Your task to perform on an android device: turn pop-ups off in chrome Image 0: 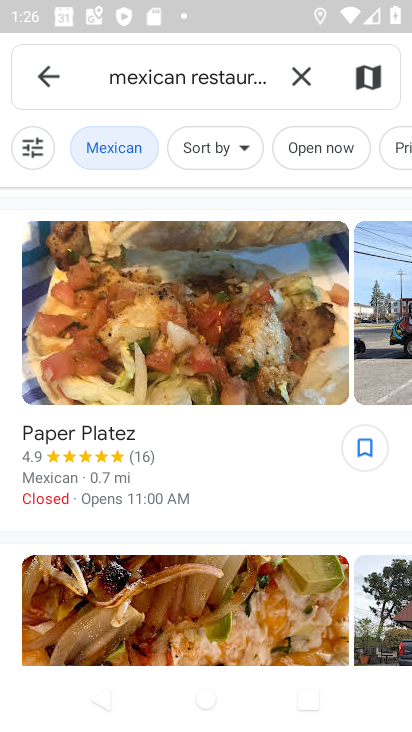
Step 0: press home button
Your task to perform on an android device: turn pop-ups off in chrome Image 1: 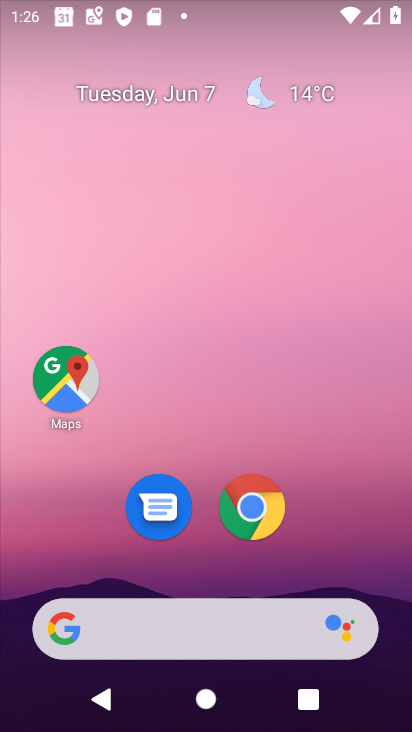
Step 1: click (247, 502)
Your task to perform on an android device: turn pop-ups off in chrome Image 2: 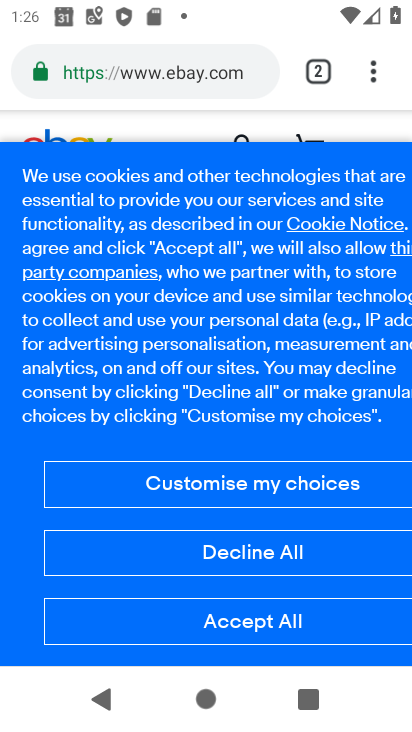
Step 2: click (369, 79)
Your task to perform on an android device: turn pop-ups off in chrome Image 3: 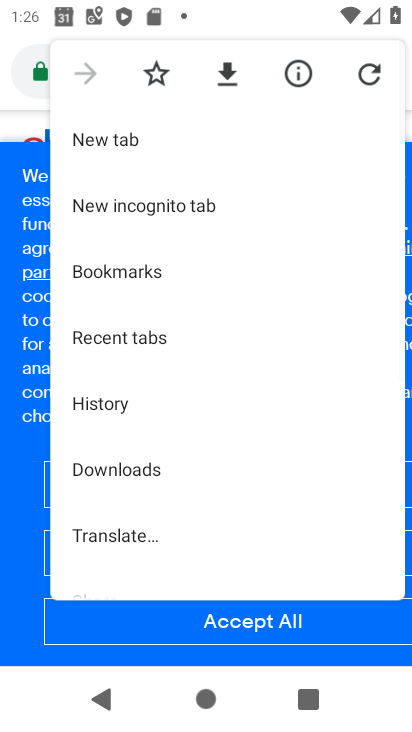
Step 3: drag from (219, 488) to (210, 151)
Your task to perform on an android device: turn pop-ups off in chrome Image 4: 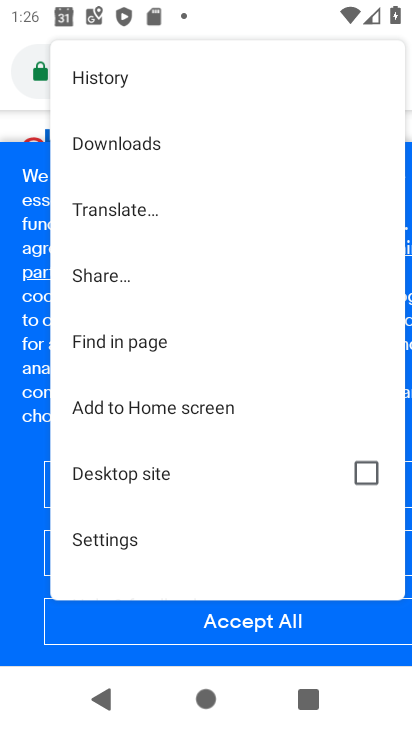
Step 4: click (113, 538)
Your task to perform on an android device: turn pop-ups off in chrome Image 5: 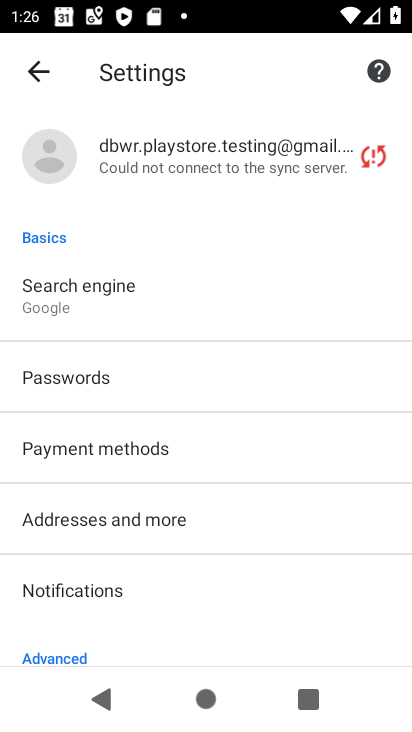
Step 5: drag from (234, 566) to (181, 187)
Your task to perform on an android device: turn pop-ups off in chrome Image 6: 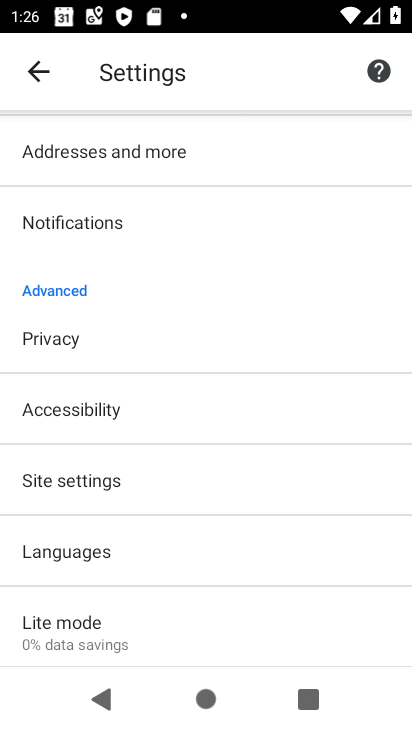
Step 6: drag from (158, 587) to (157, 407)
Your task to perform on an android device: turn pop-ups off in chrome Image 7: 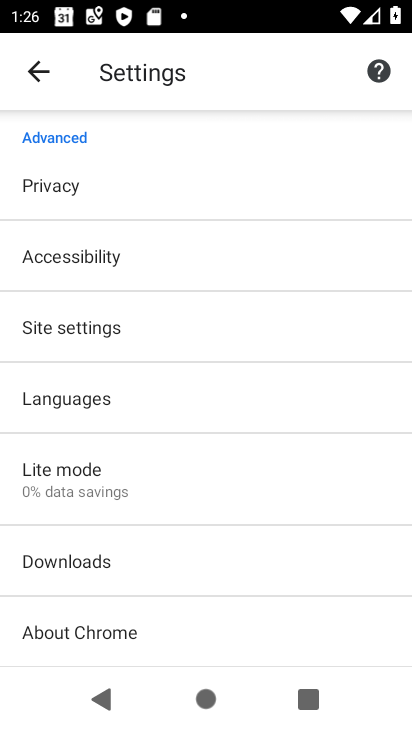
Step 7: click (73, 319)
Your task to perform on an android device: turn pop-ups off in chrome Image 8: 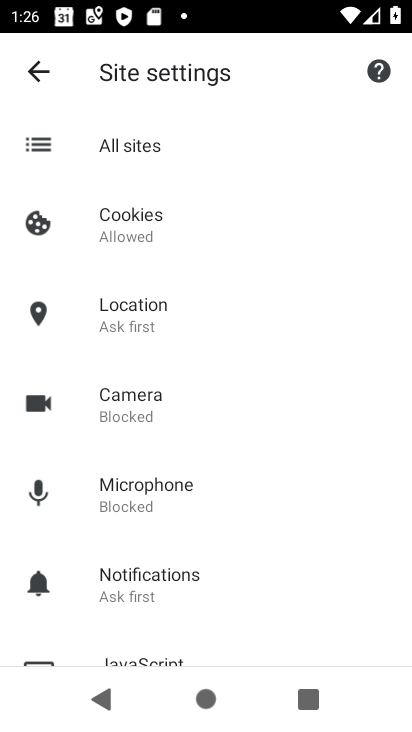
Step 8: drag from (232, 616) to (224, 236)
Your task to perform on an android device: turn pop-ups off in chrome Image 9: 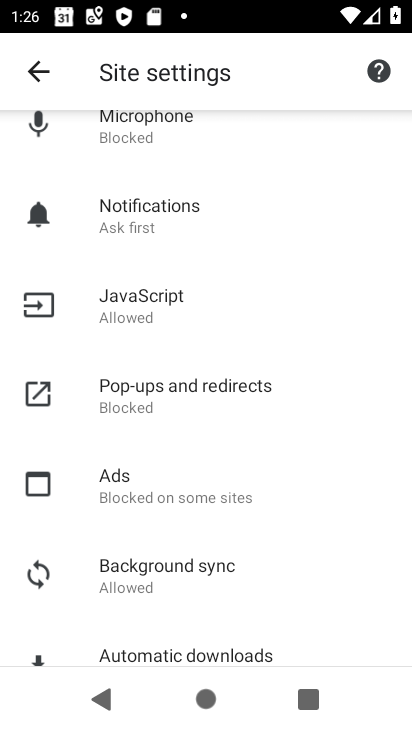
Step 9: click (151, 387)
Your task to perform on an android device: turn pop-ups off in chrome Image 10: 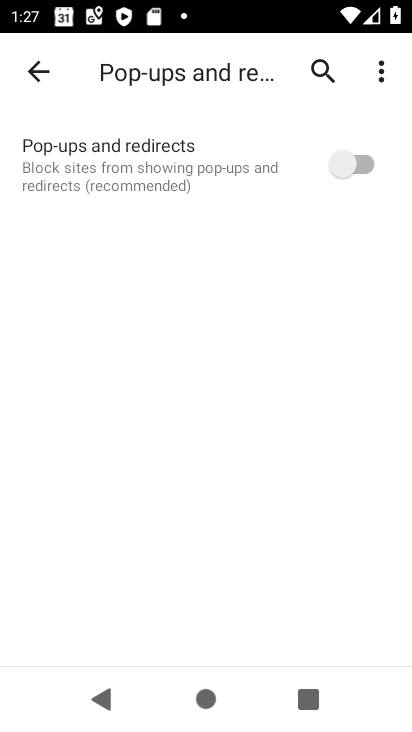
Step 10: task complete